Your task to perform on an android device: turn off notifications settings in the gmail app Image 0: 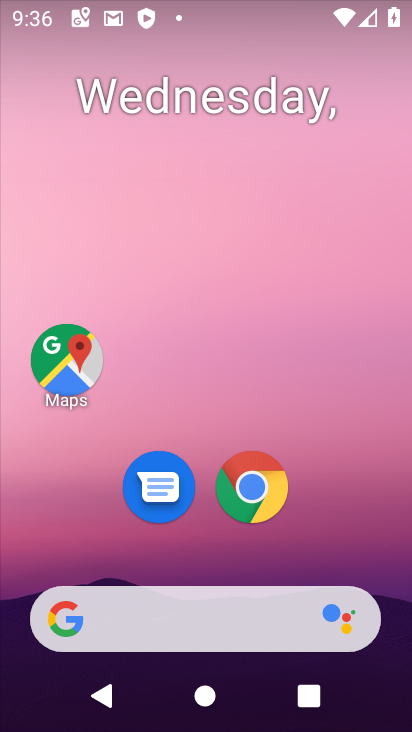
Step 0: drag from (63, 553) to (201, 15)
Your task to perform on an android device: turn off notifications settings in the gmail app Image 1: 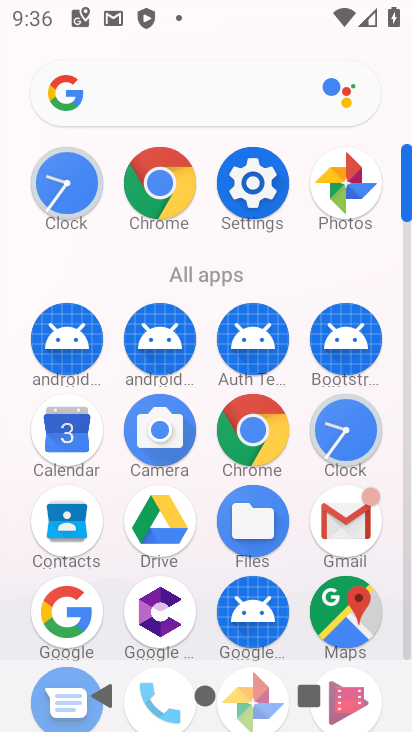
Step 1: click (344, 518)
Your task to perform on an android device: turn off notifications settings in the gmail app Image 2: 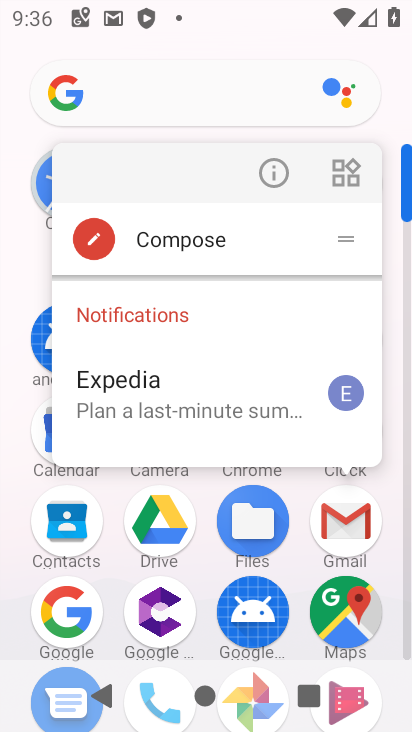
Step 2: click (268, 169)
Your task to perform on an android device: turn off notifications settings in the gmail app Image 3: 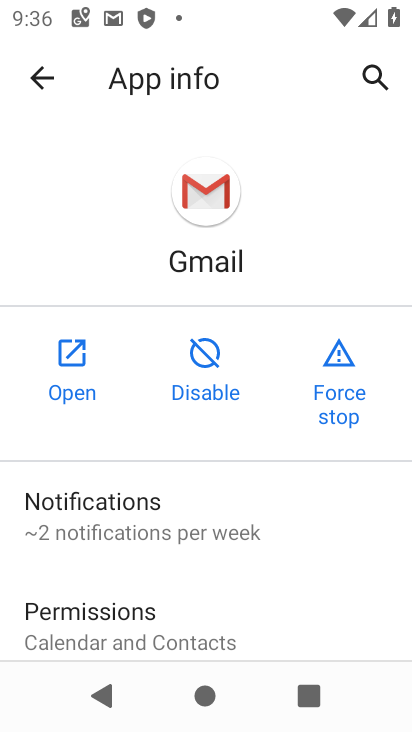
Step 3: click (137, 506)
Your task to perform on an android device: turn off notifications settings in the gmail app Image 4: 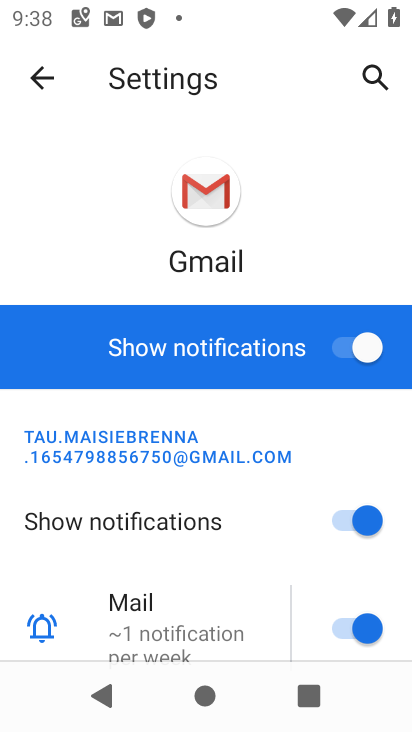
Step 4: click (359, 353)
Your task to perform on an android device: turn off notifications settings in the gmail app Image 5: 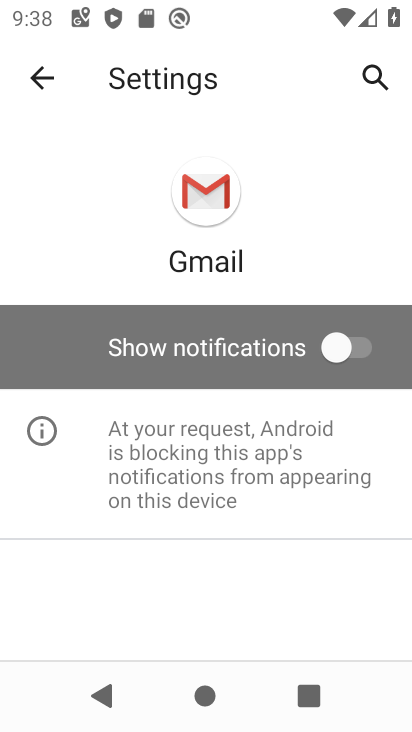
Step 5: task complete